Your task to perform on an android device: Do I have any events today? Image 0: 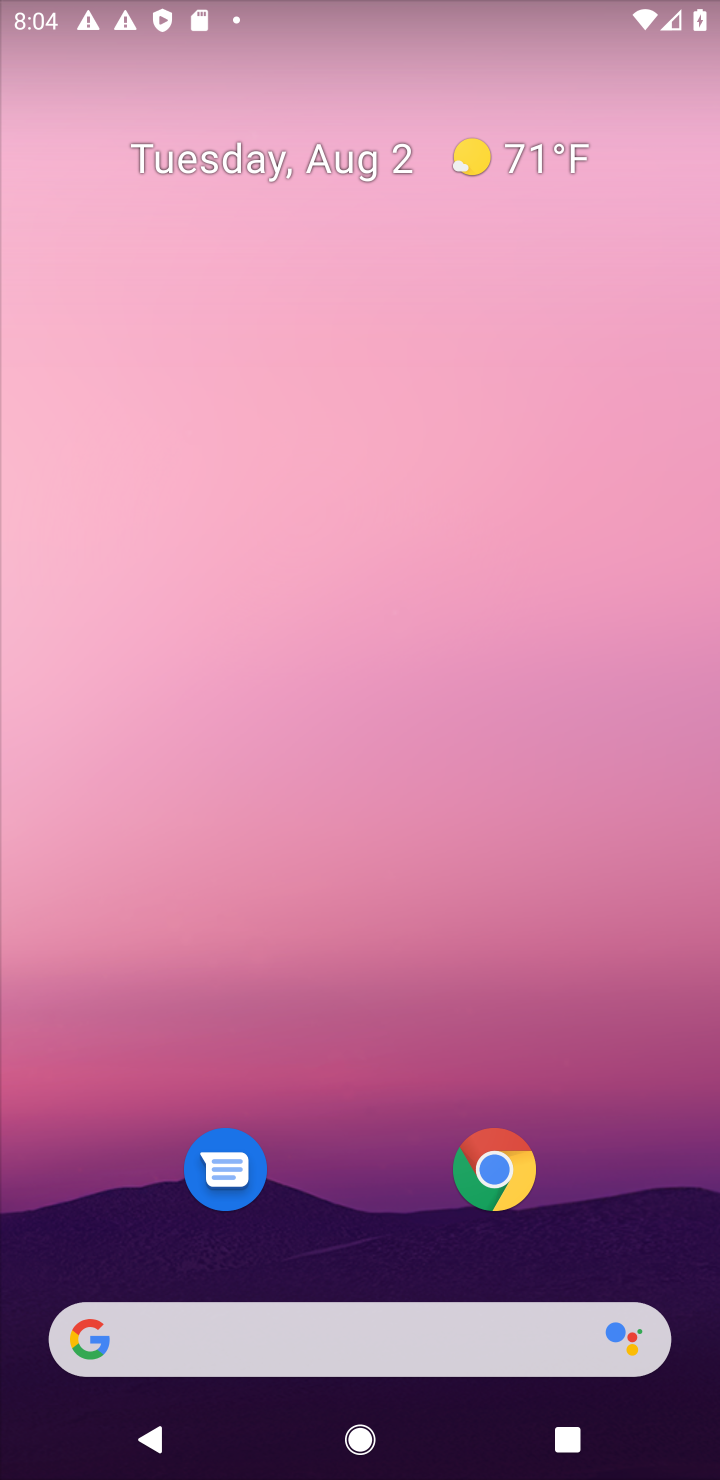
Step 0: drag from (376, 1000) to (346, 0)
Your task to perform on an android device: Do I have any events today? Image 1: 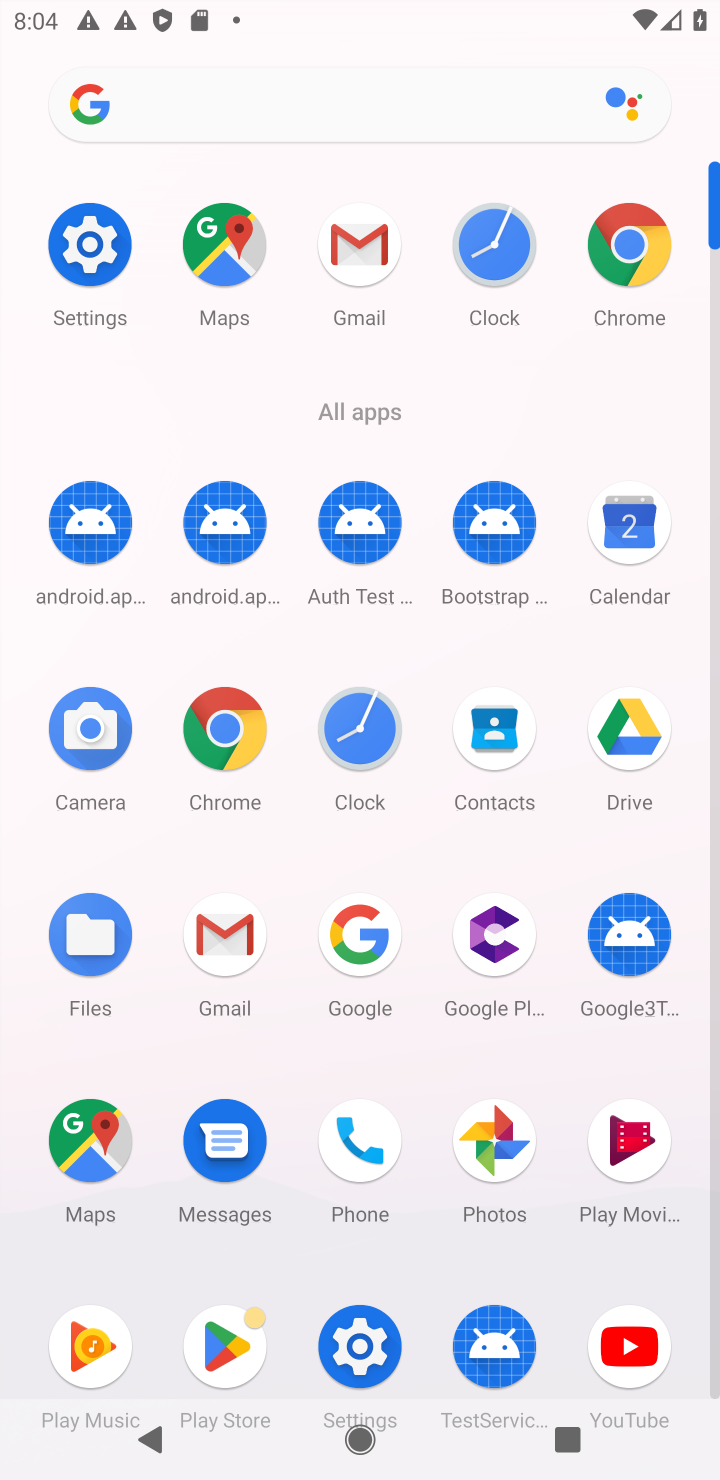
Step 1: click (622, 518)
Your task to perform on an android device: Do I have any events today? Image 2: 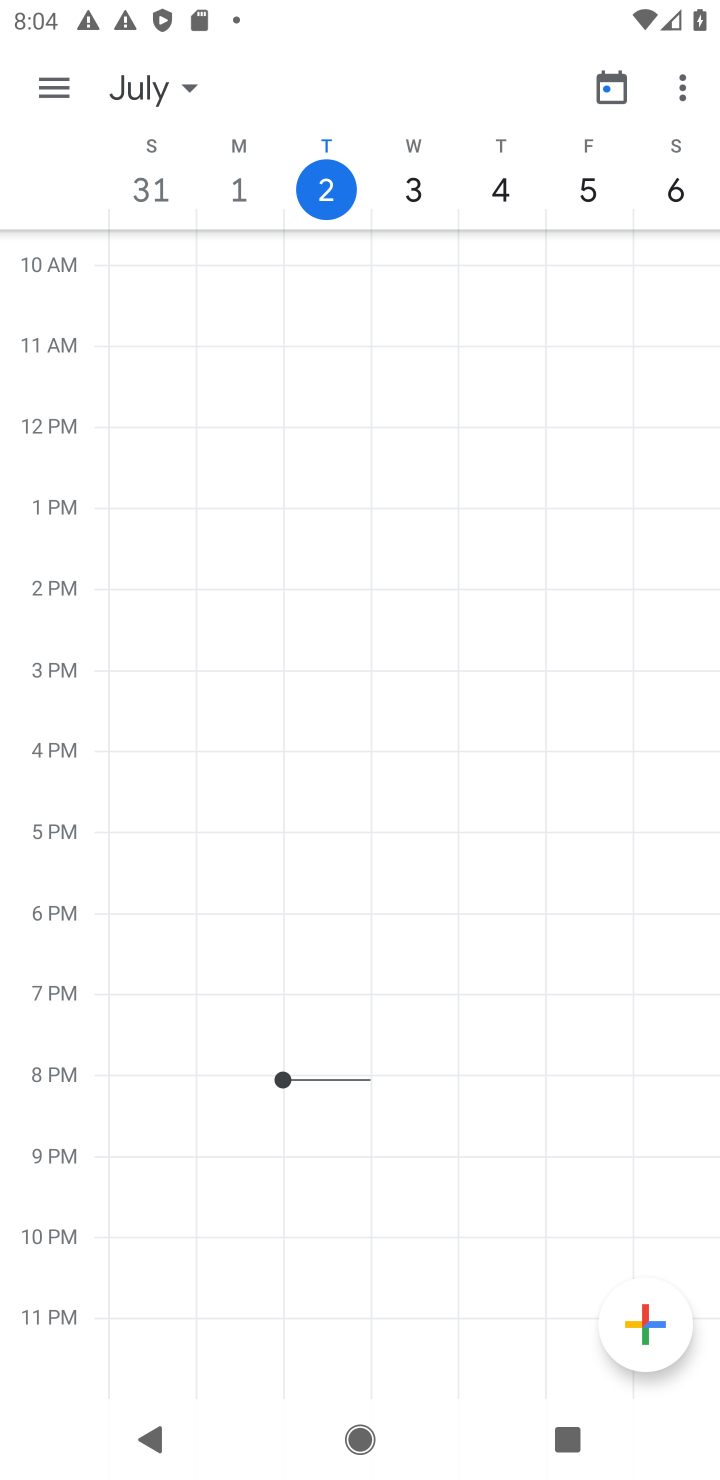
Step 2: click (325, 192)
Your task to perform on an android device: Do I have any events today? Image 3: 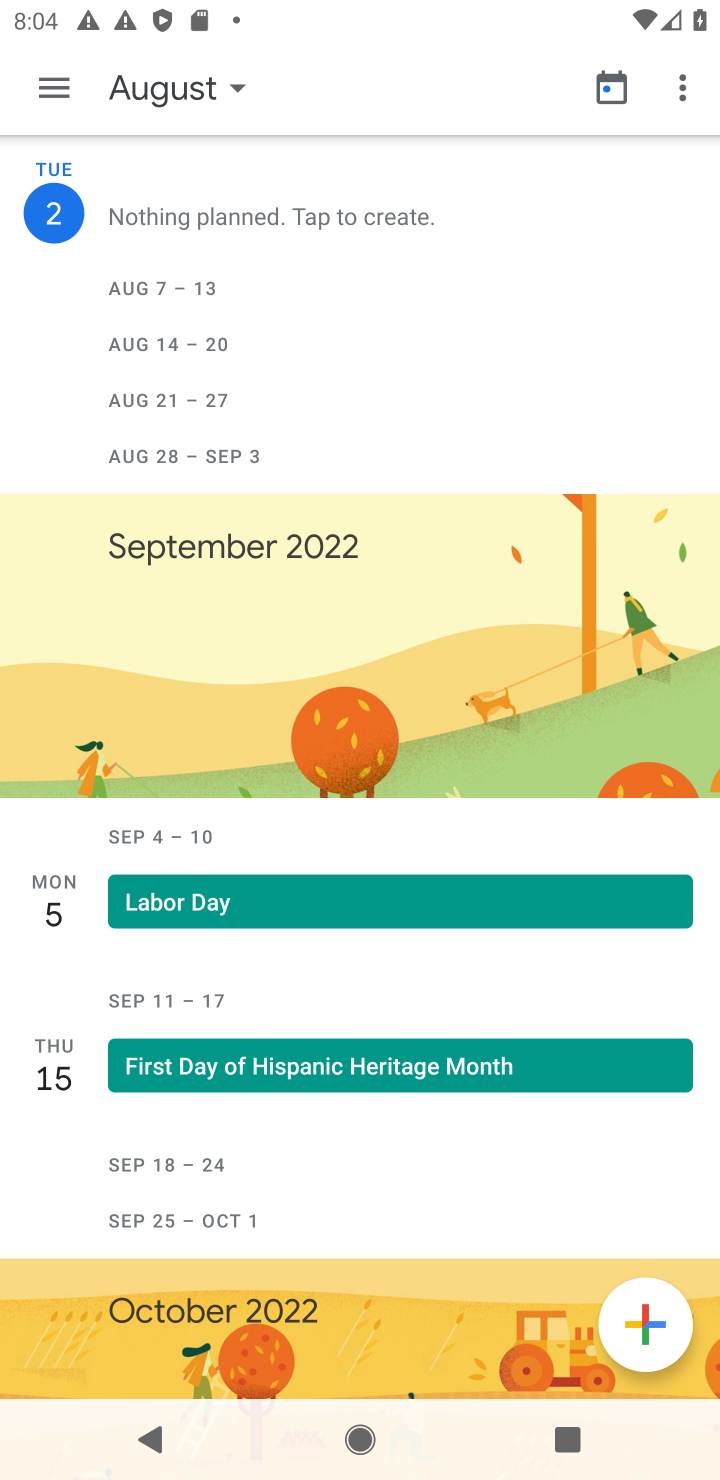
Step 3: task complete